Your task to perform on an android device: turn notification dots on Image 0: 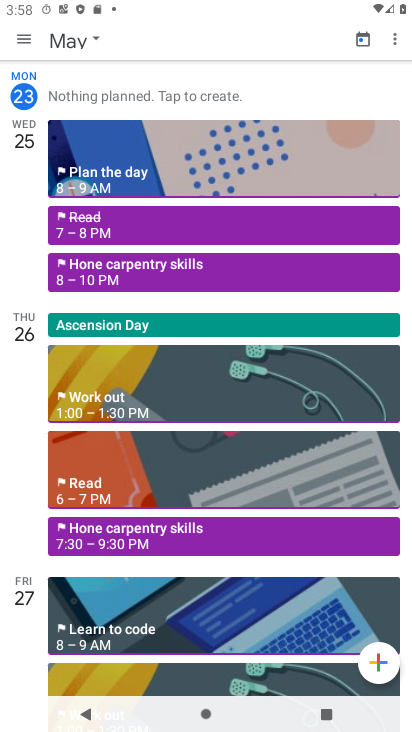
Step 0: press home button
Your task to perform on an android device: turn notification dots on Image 1: 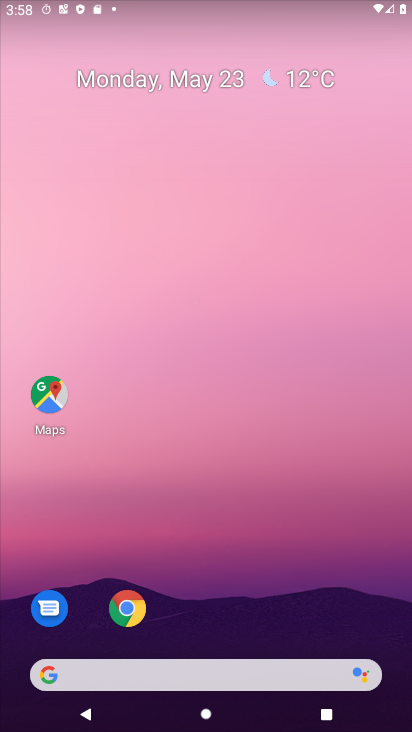
Step 1: drag from (313, 416) to (269, 25)
Your task to perform on an android device: turn notification dots on Image 2: 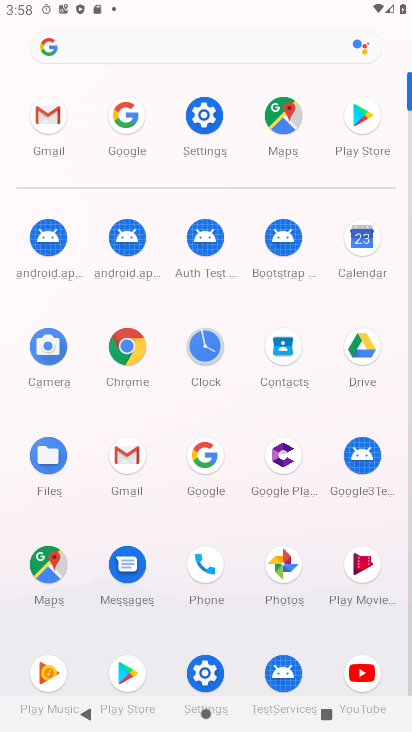
Step 2: click (217, 109)
Your task to perform on an android device: turn notification dots on Image 3: 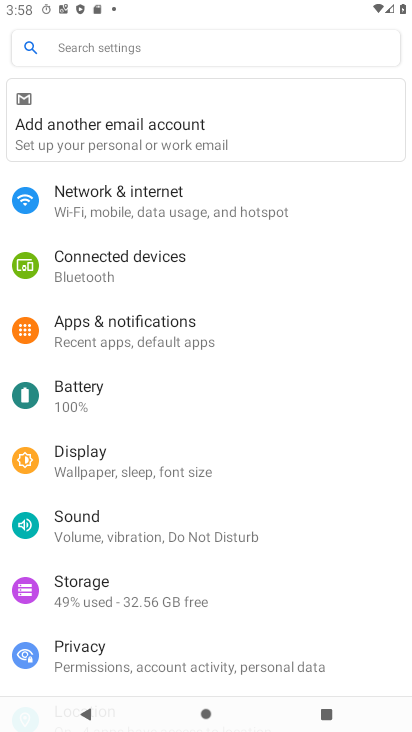
Step 3: click (146, 340)
Your task to perform on an android device: turn notification dots on Image 4: 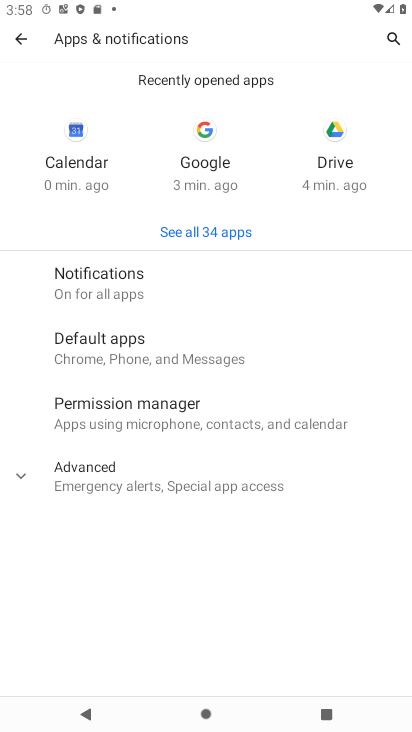
Step 4: click (161, 287)
Your task to perform on an android device: turn notification dots on Image 5: 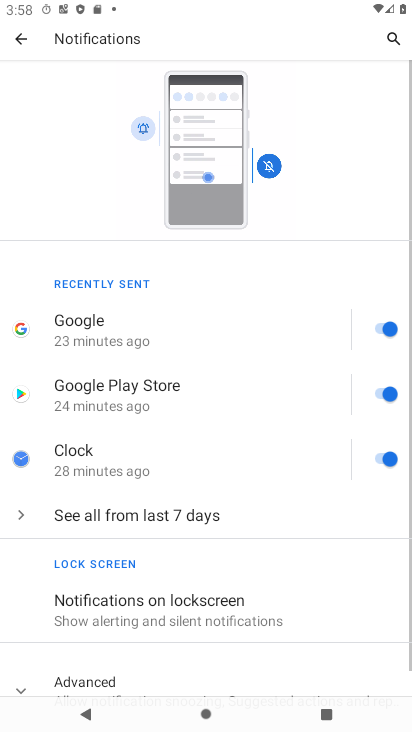
Step 5: click (193, 679)
Your task to perform on an android device: turn notification dots on Image 6: 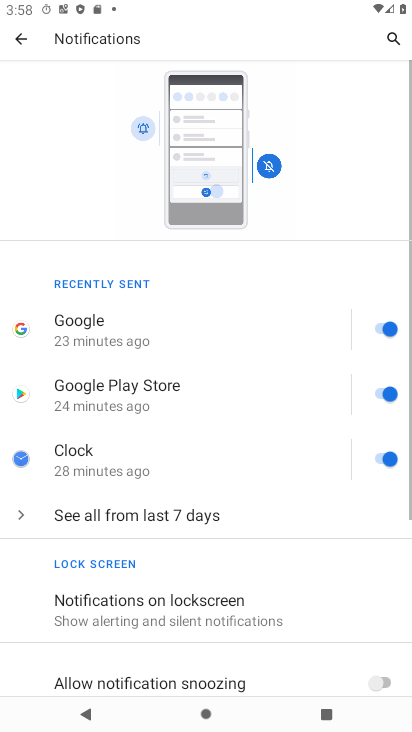
Step 6: drag from (207, 654) to (221, 156)
Your task to perform on an android device: turn notification dots on Image 7: 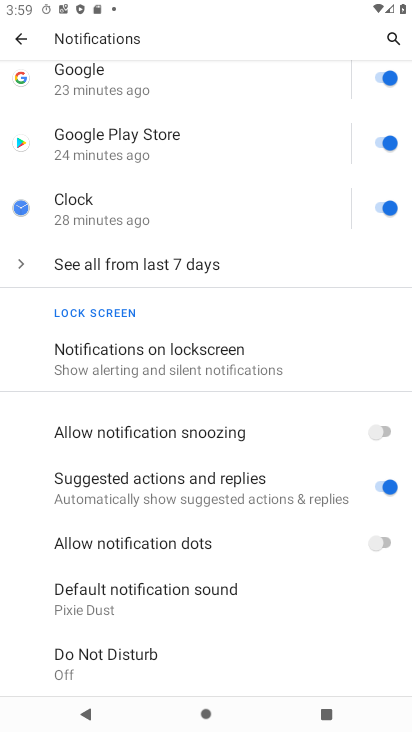
Step 7: click (377, 535)
Your task to perform on an android device: turn notification dots on Image 8: 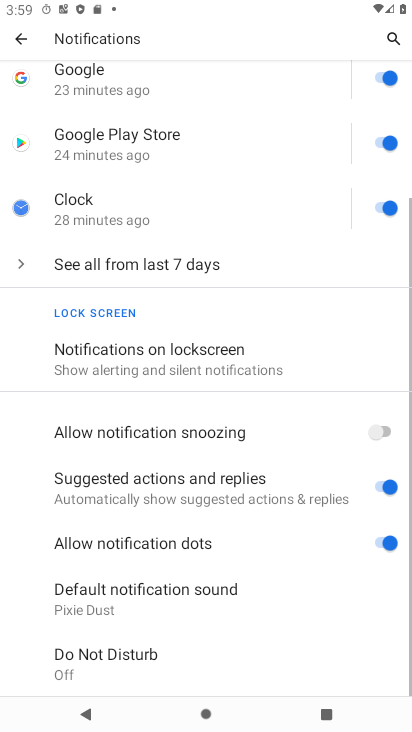
Step 8: task complete